Your task to perform on an android device: Open my contact list Image 0: 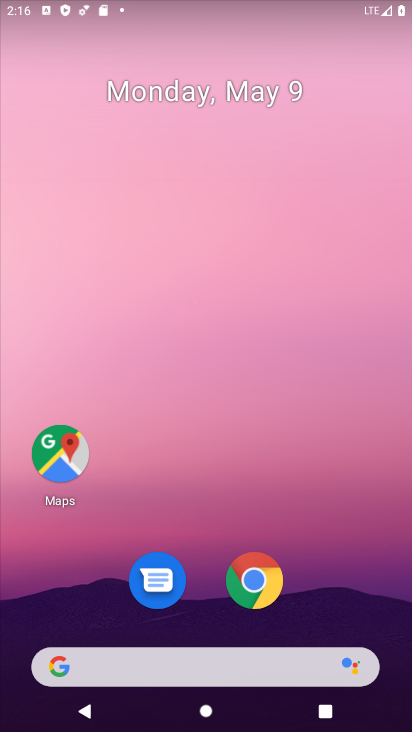
Step 0: drag from (333, 572) to (243, 91)
Your task to perform on an android device: Open my contact list Image 1: 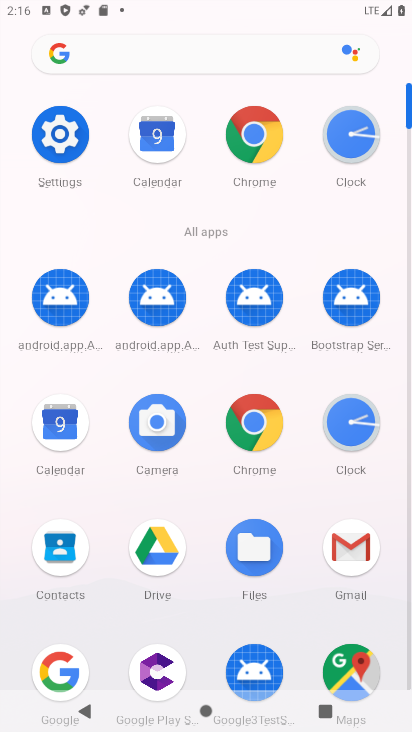
Step 1: click (51, 554)
Your task to perform on an android device: Open my contact list Image 2: 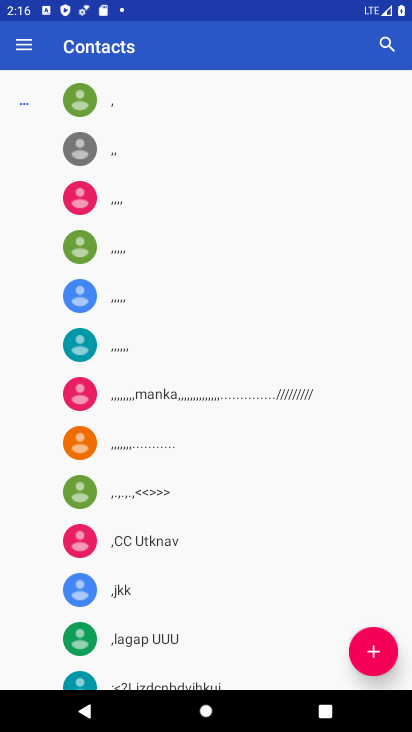
Step 2: task complete